Your task to perform on an android device: Search for the new Air Jordan 13 on Nike.com Image 0: 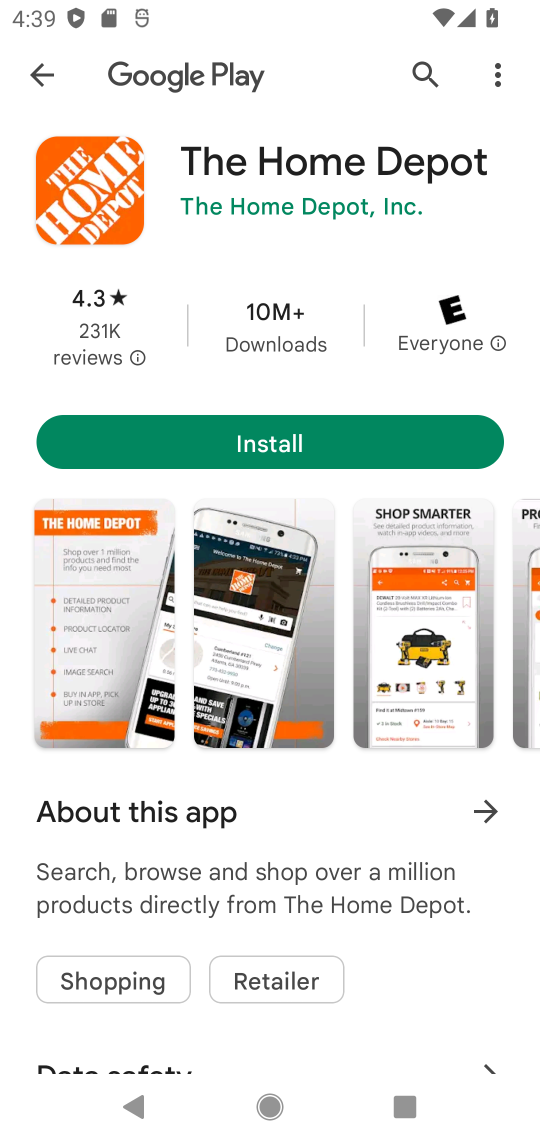
Step 0: press home button
Your task to perform on an android device: Search for the new Air Jordan 13 on Nike.com Image 1: 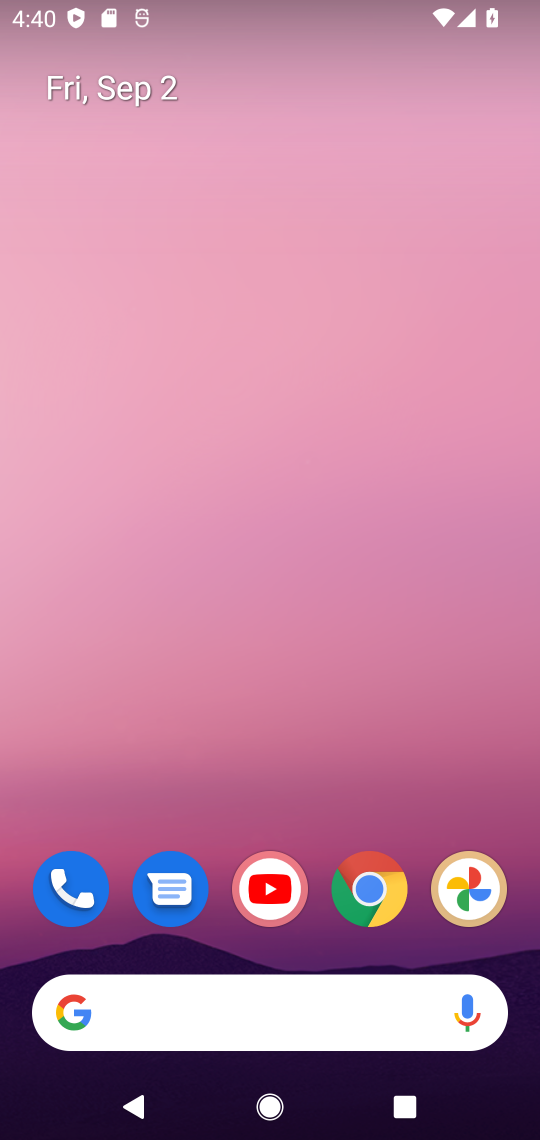
Step 1: click (331, 899)
Your task to perform on an android device: Search for the new Air Jordan 13 on Nike.com Image 2: 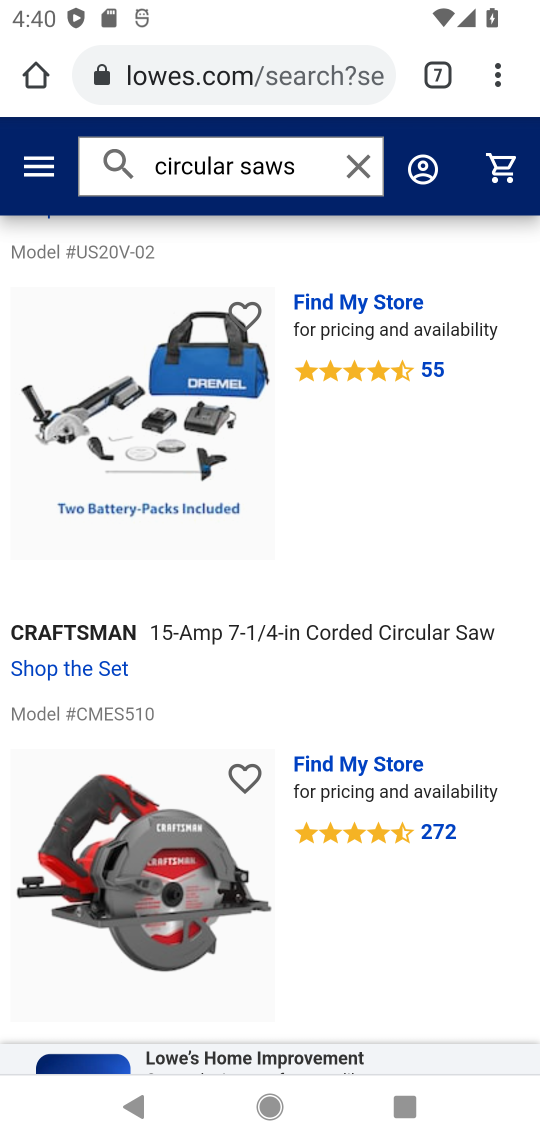
Step 2: click (347, 172)
Your task to perform on an android device: Search for the new Air Jordan 13 on Nike.com Image 3: 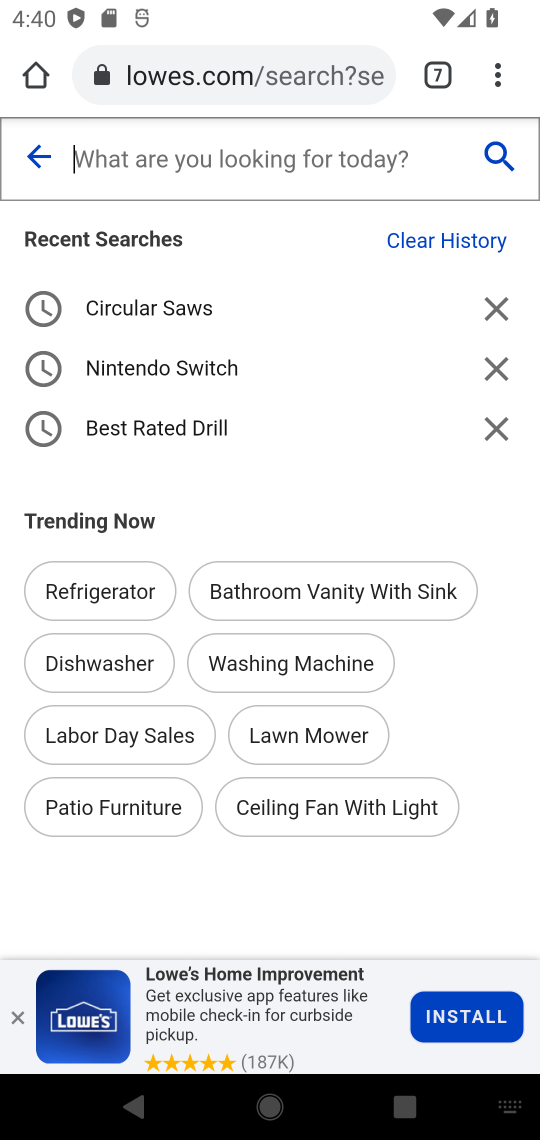
Step 3: click (426, 76)
Your task to perform on an android device: Search for the new Air Jordan 13 on Nike.com Image 4: 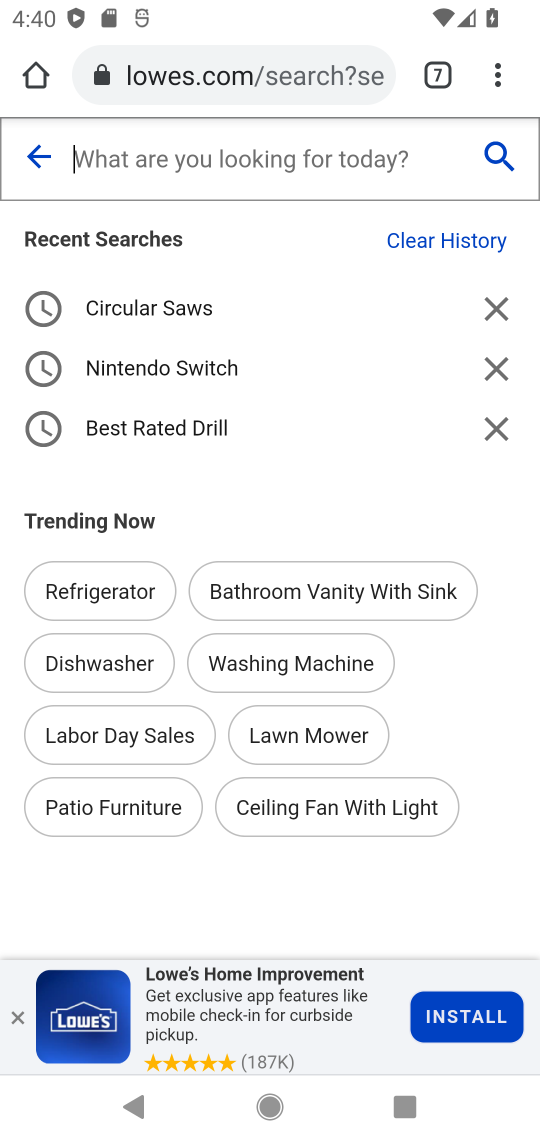
Step 4: click (438, 86)
Your task to perform on an android device: Search for the new Air Jordan 13 on Nike.com Image 5: 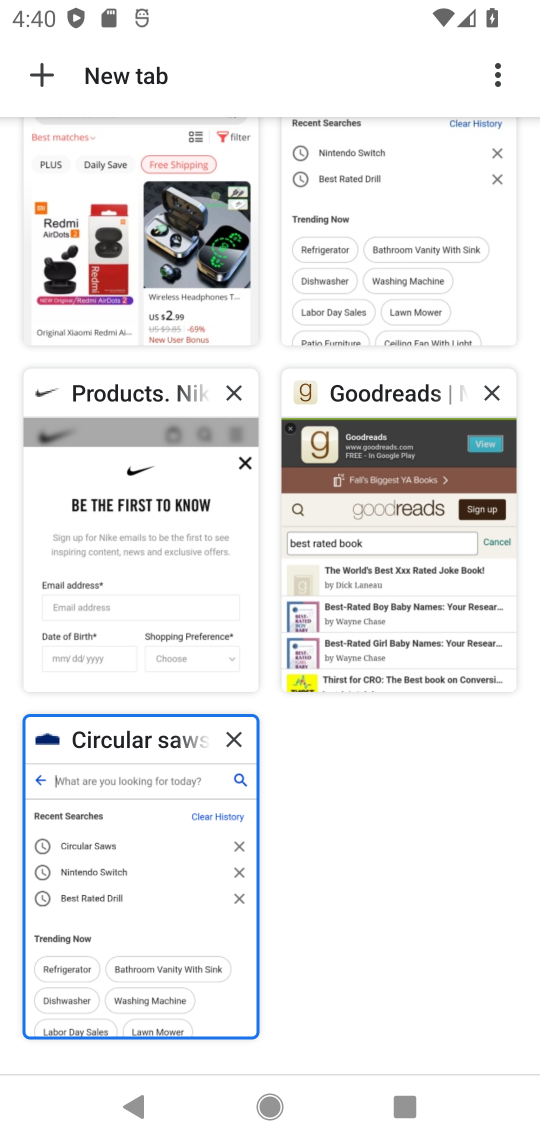
Step 5: click (49, 68)
Your task to perform on an android device: Search for the new Air Jordan 13 on Nike.com Image 6: 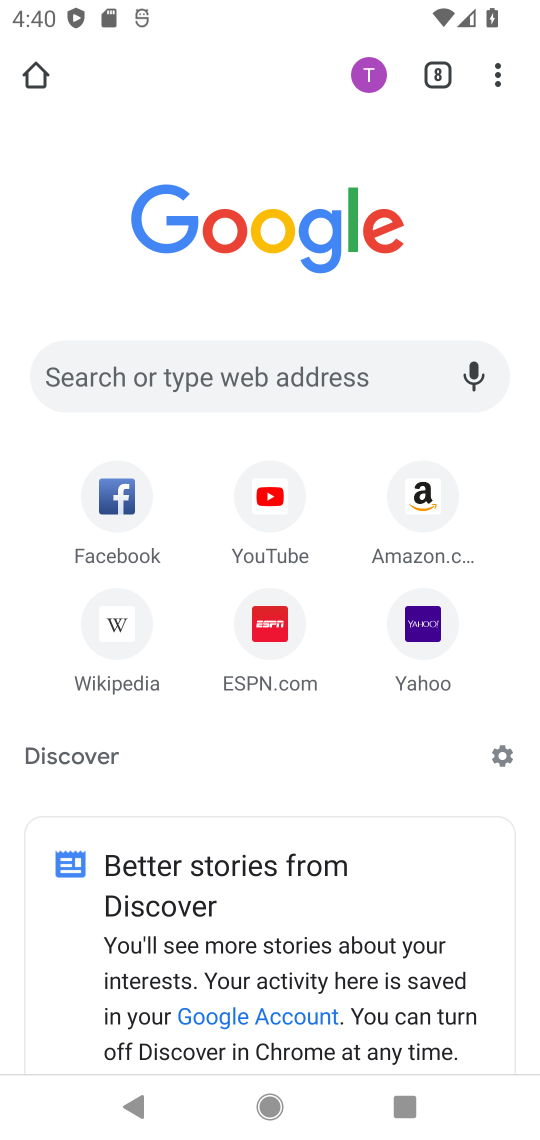
Step 6: click (176, 393)
Your task to perform on an android device: Search for the new Air Jordan 13 on Nike.com Image 7: 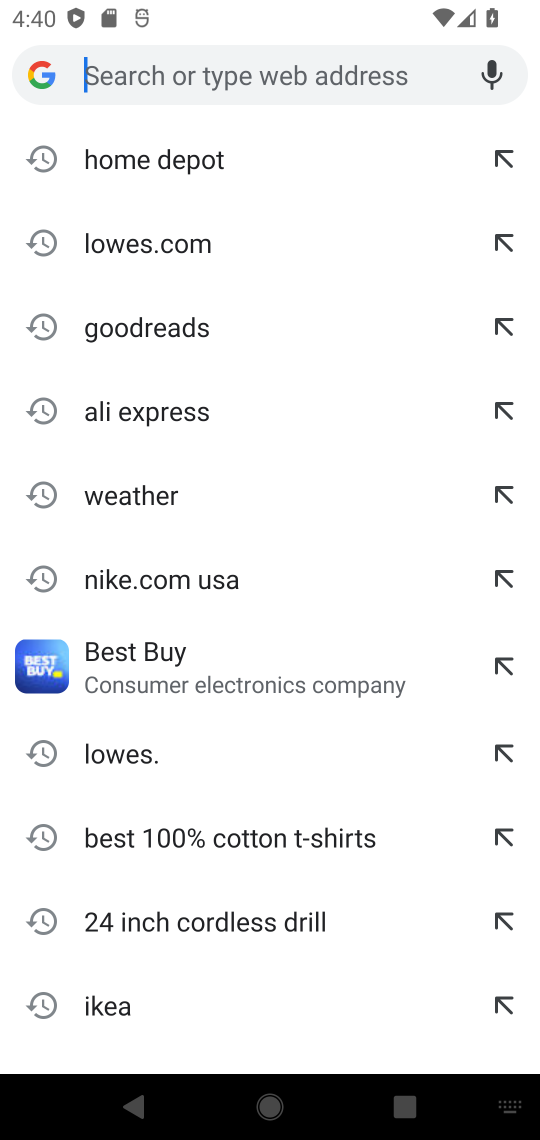
Step 7: click (196, 578)
Your task to perform on an android device: Search for the new Air Jordan 13 on Nike.com Image 8: 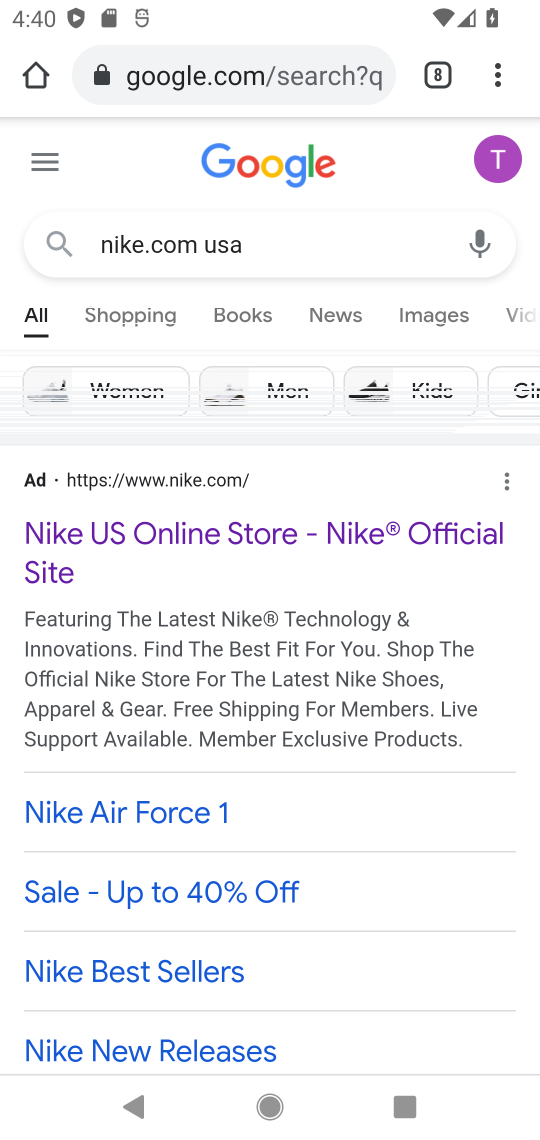
Step 8: drag from (338, 608) to (342, 325)
Your task to perform on an android device: Search for the new Air Jordan 13 on Nike.com Image 9: 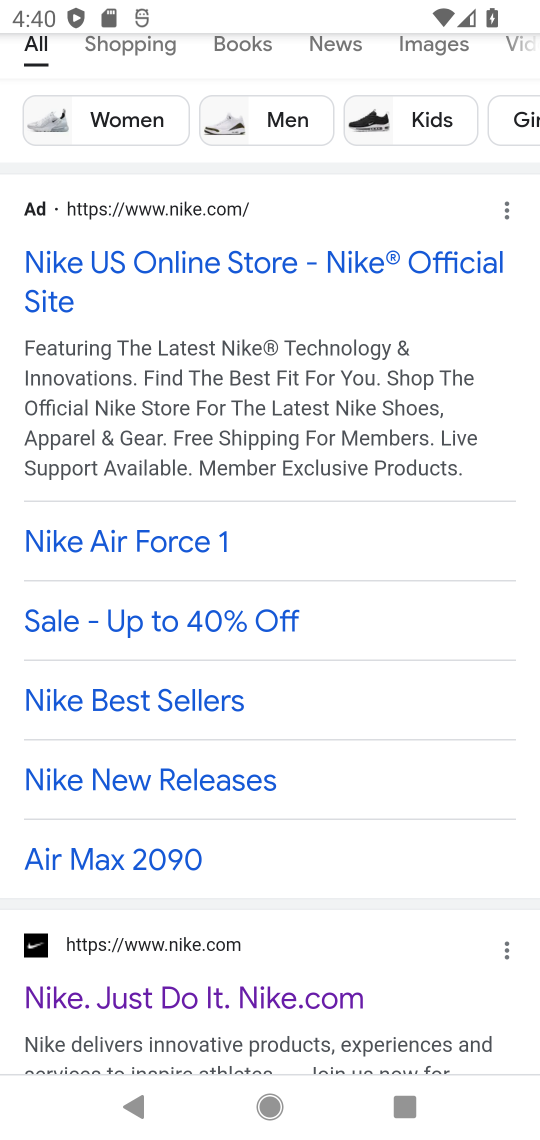
Step 9: click (305, 992)
Your task to perform on an android device: Search for the new Air Jordan 13 on Nike.com Image 10: 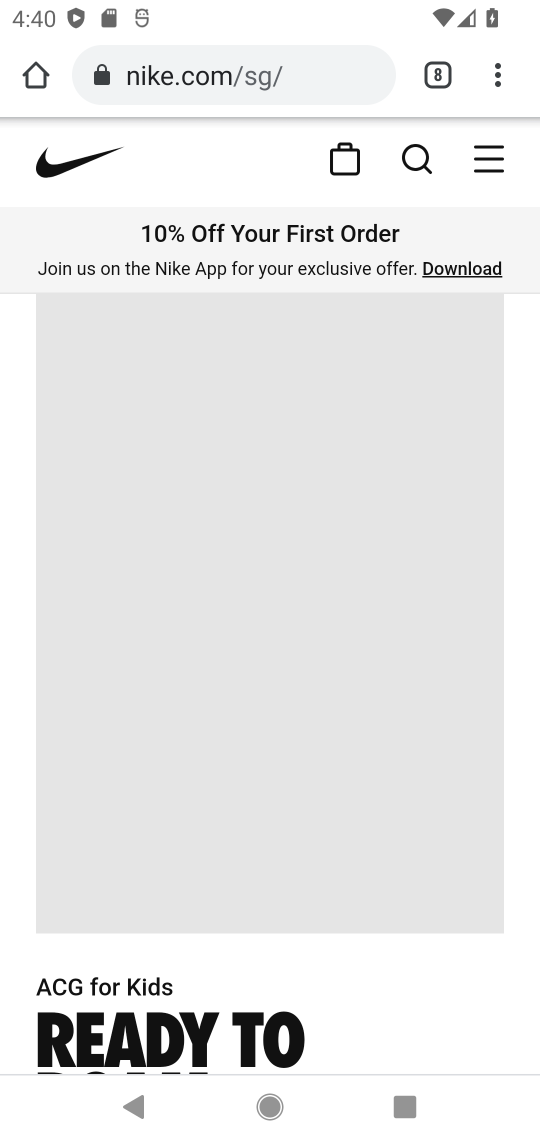
Step 10: click (417, 165)
Your task to perform on an android device: Search for the new Air Jordan 13 on Nike.com Image 11: 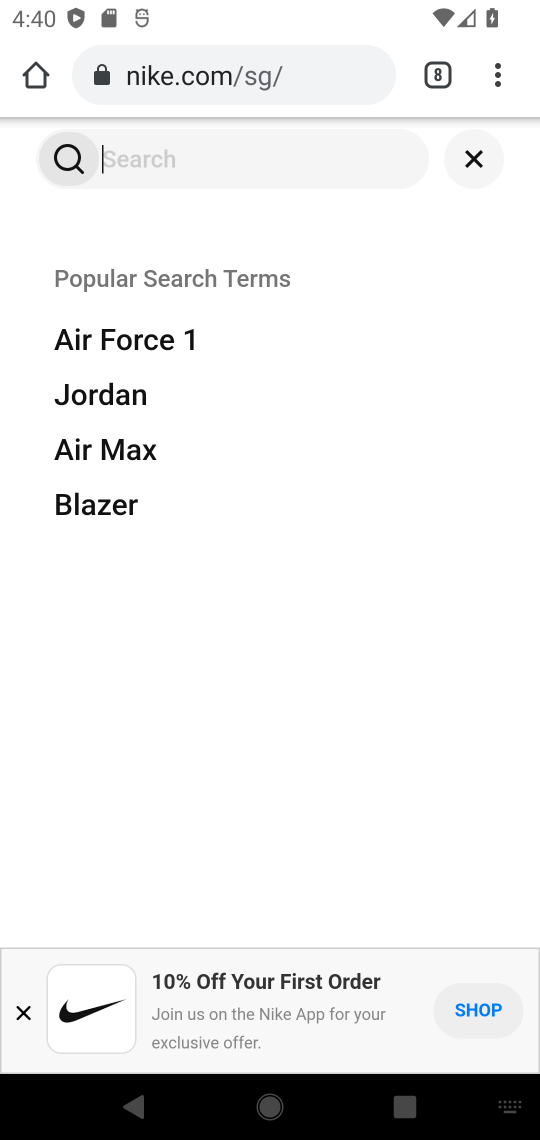
Step 11: type "Air Jordan 13 "
Your task to perform on an android device: Search for the new Air Jordan 13 on Nike.com Image 12: 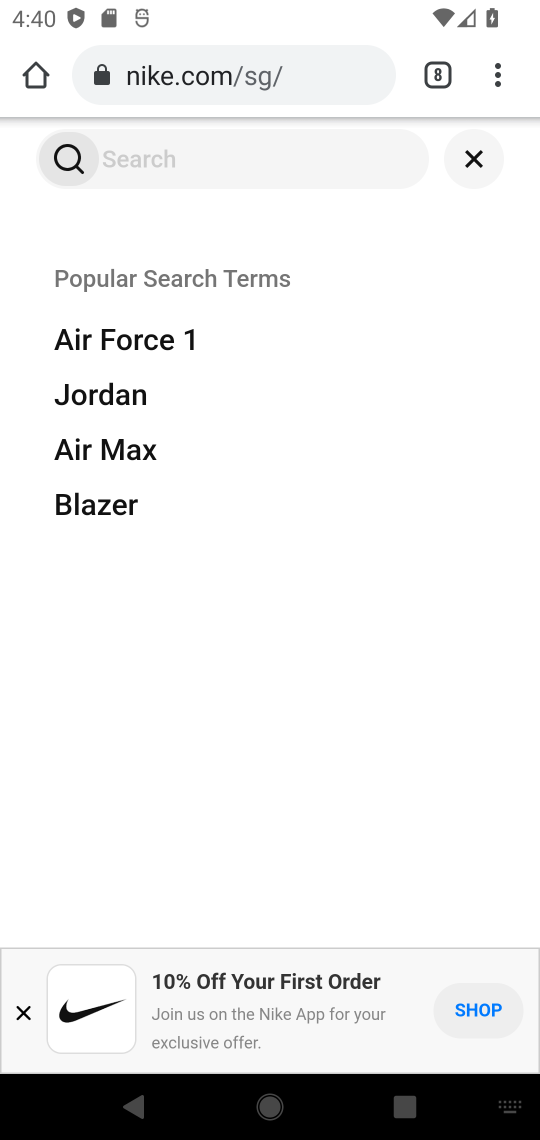
Step 12: type ""
Your task to perform on an android device: Search for the new Air Jordan 13 on Nike.com Image 13: 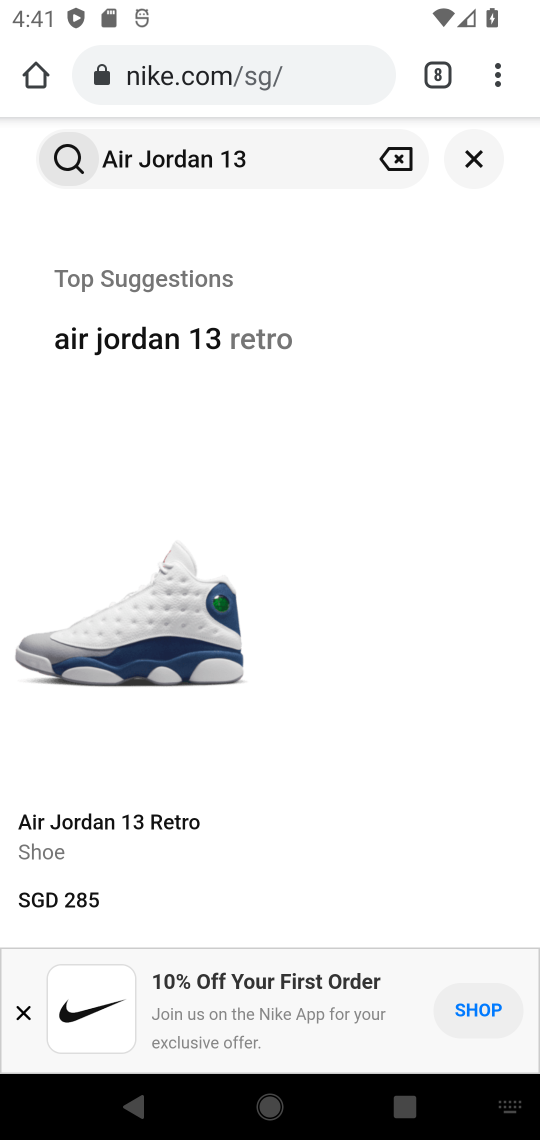
Step 13: task complete